Your task to perform on an android device: install app "Gmail" Image 0: 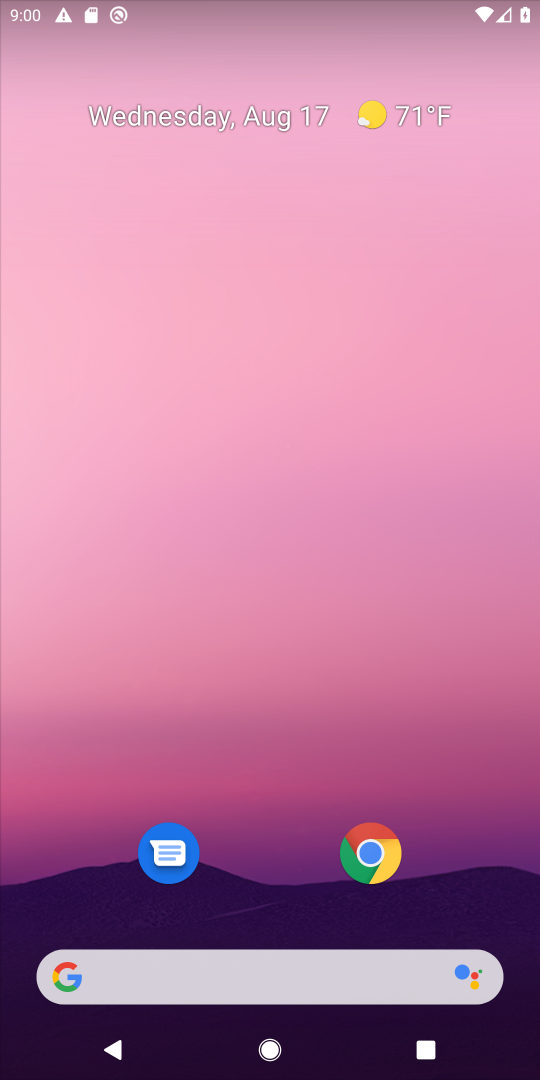
Step 0: drag from (253, 810) to (345, 210)
Your task to perform on an android device: install app "Gmail" Image 1: 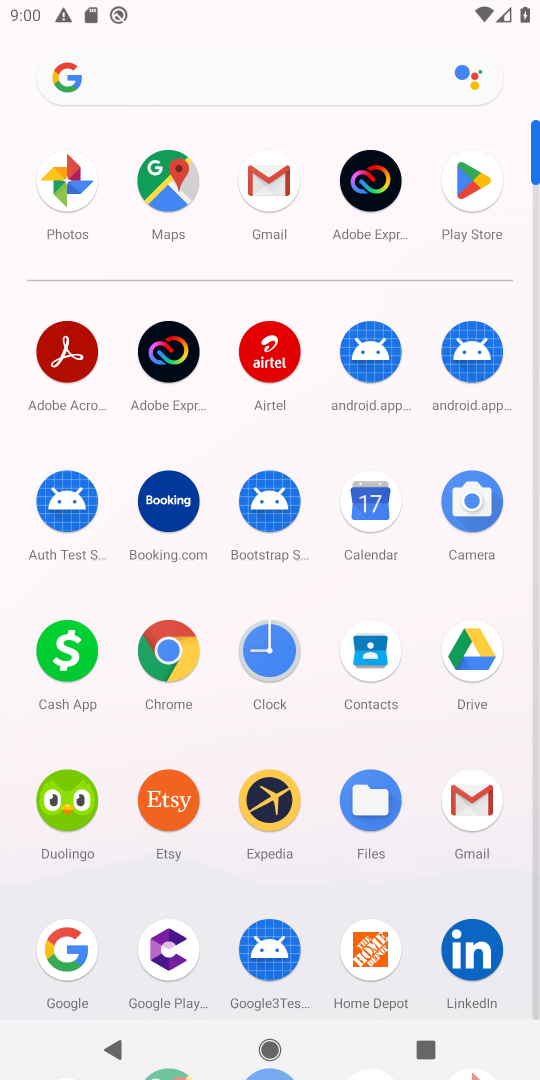
Step 1: click (473, 183)
Your task to perform on an android device: install app "Gmail" Image 2: 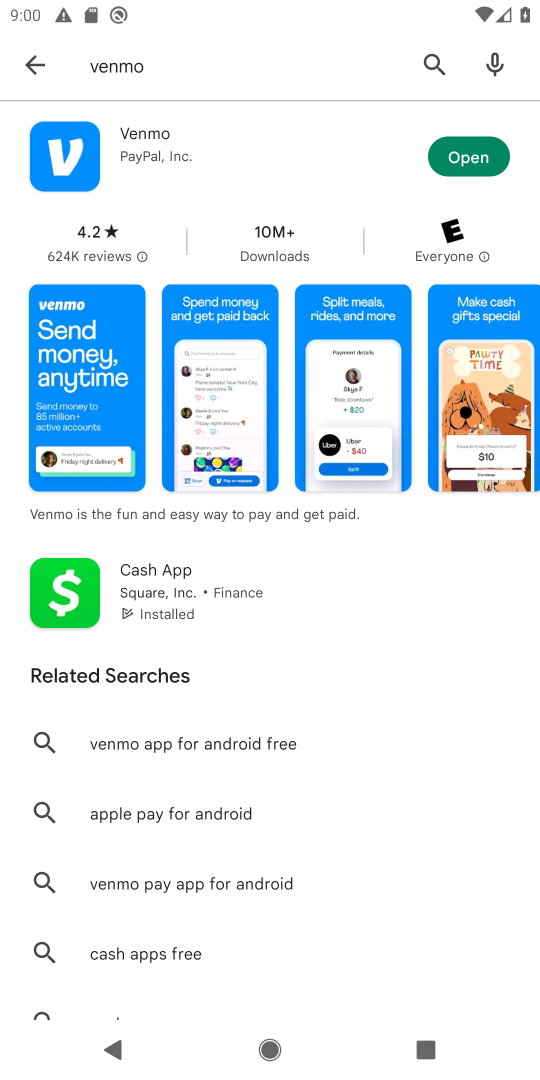
Step 2: click (429, 48)
Your task to perform on an android device: install app "Gmail" Image 3: 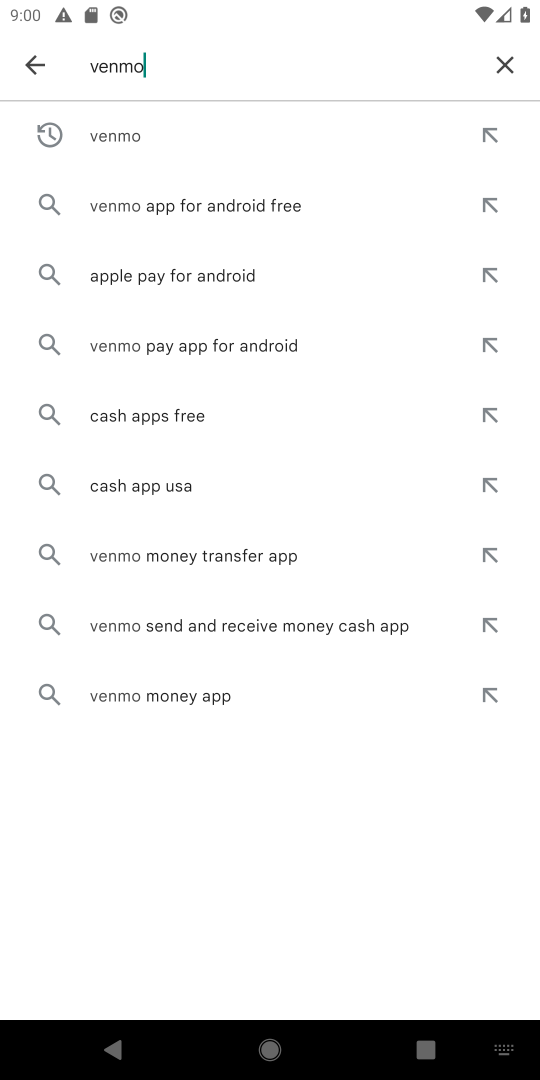
Step 3: click (510, 48)
Your task to perform on an android device: install app "Gmail" Image 4: 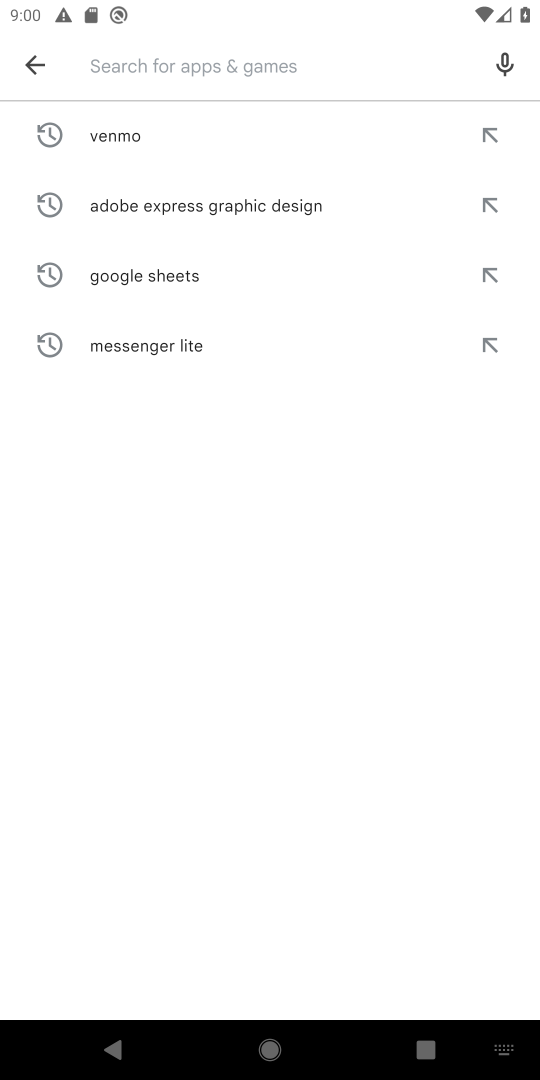
Step 4: type "Gmail"
Your task to perform on an android device: install app "Gmail" Image 5: 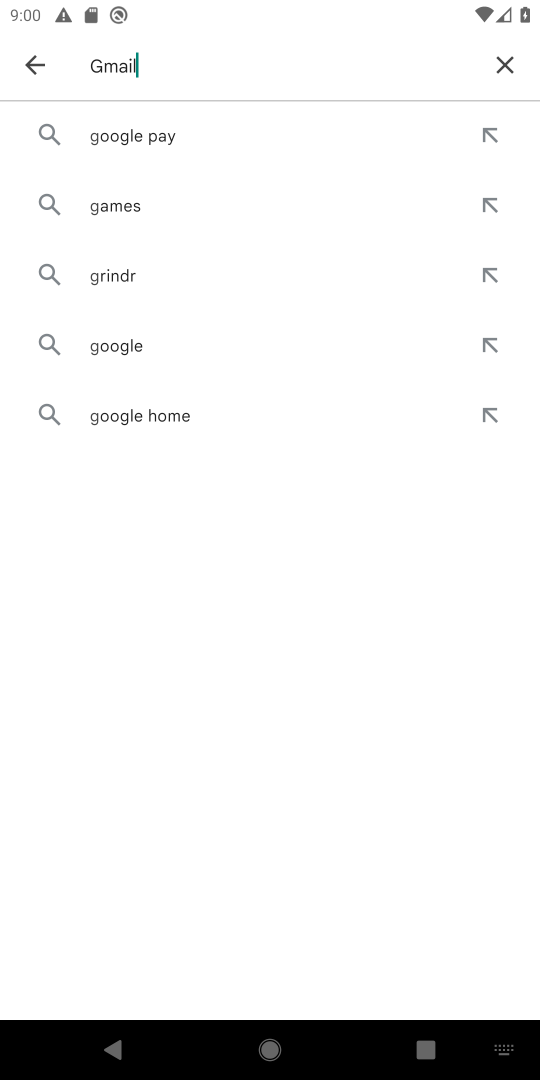
Step 5: type ""
Your task to perform on an android device: install app "Gmail" Image 6: 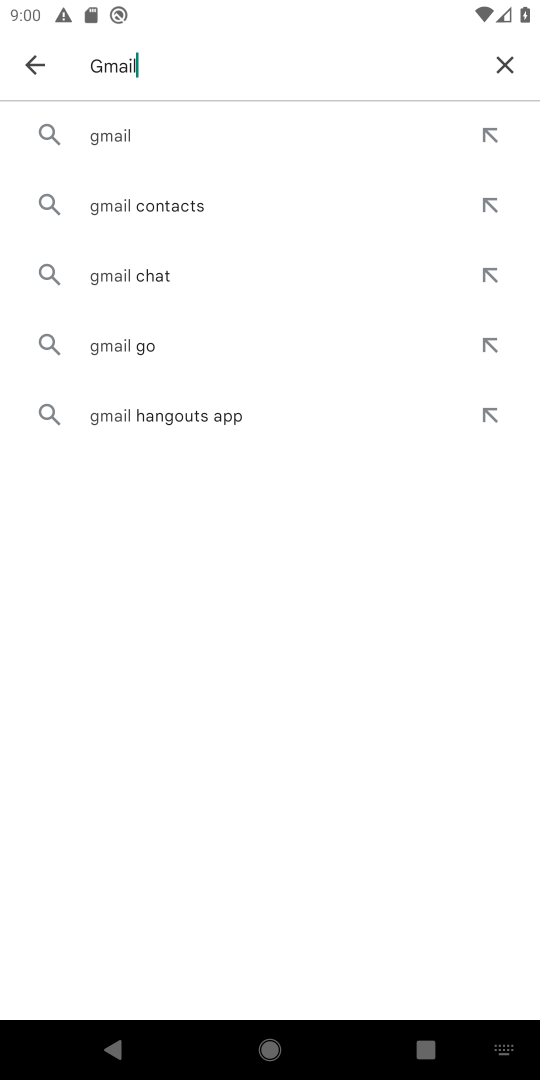
Step 6: click (116, 123)
Your task to perform on an android device: install app "Gmail" Image 7: 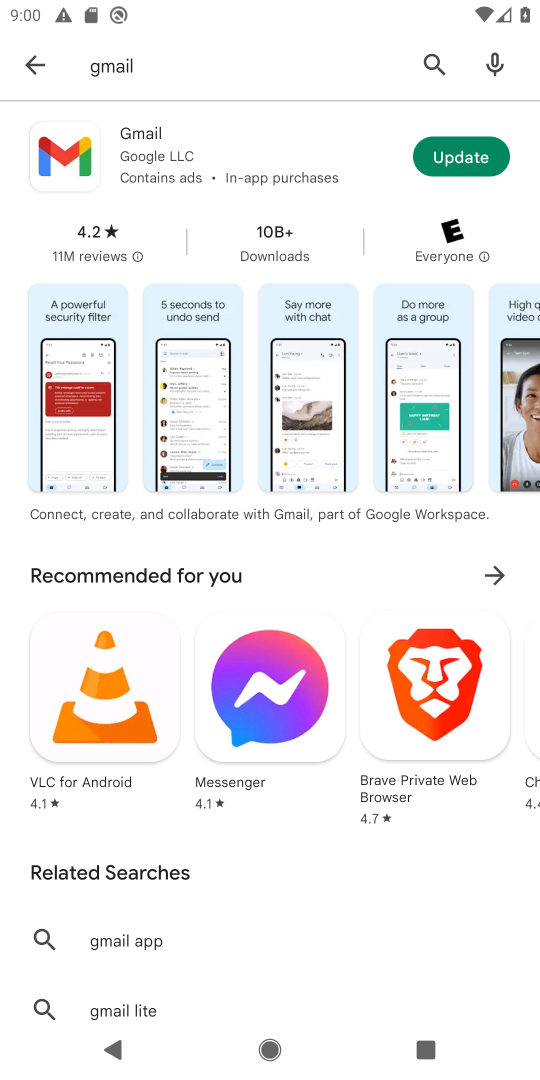
Step 7: click (311, 147)
Your task to perform on an android device: install app "Gmail" Image 8: 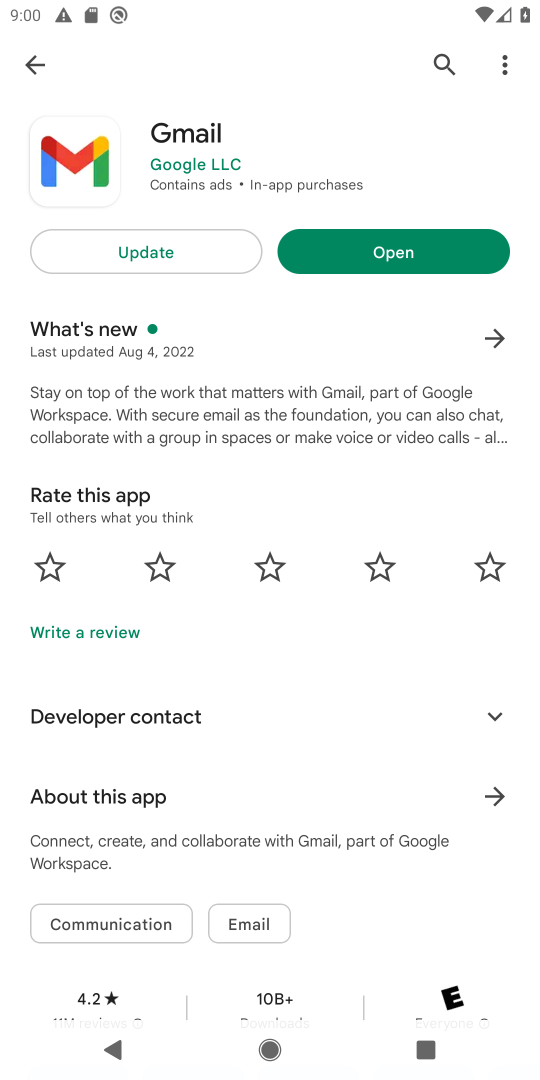
Step 8: task complete